Your task to perform on an android device: allow cookies in the chrome app Image 0: 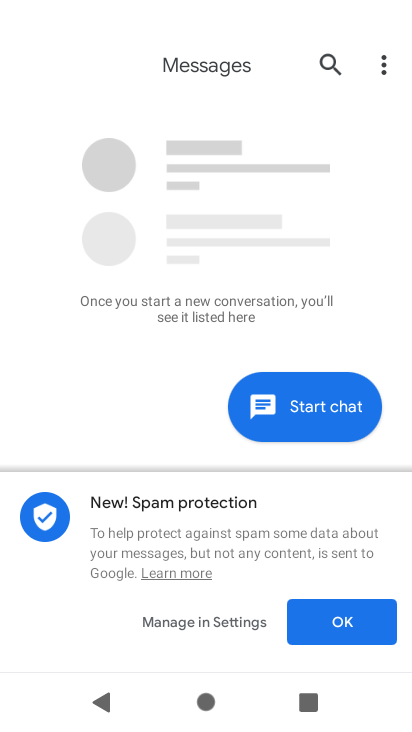
Step 0: press home button
Your task to perform on an android device: allow cookies in the chrome app Image 1: 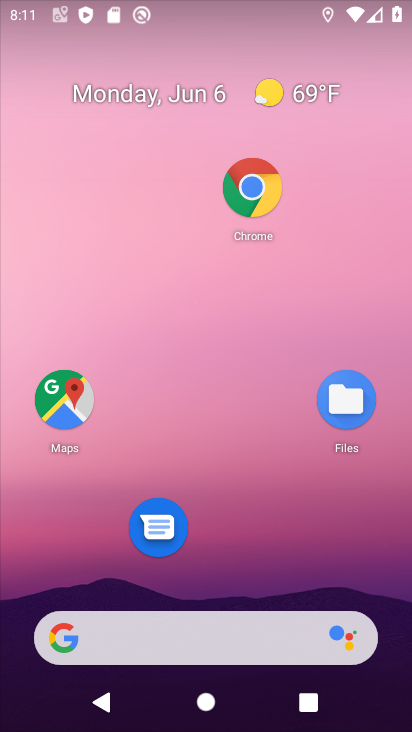
Step 1: click (250, 180)
Your task to perform on an android device: allow cookies in the chrome app Image 2: 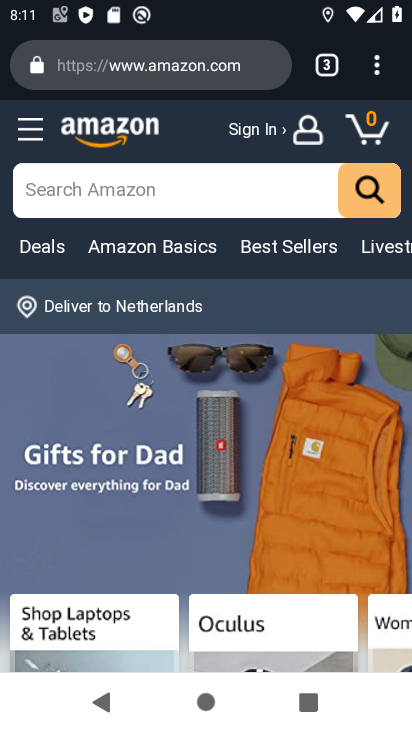
Step 2: click (363, 73)
Your task to perform on an android device: allow cookies in the chrome app Image 3: 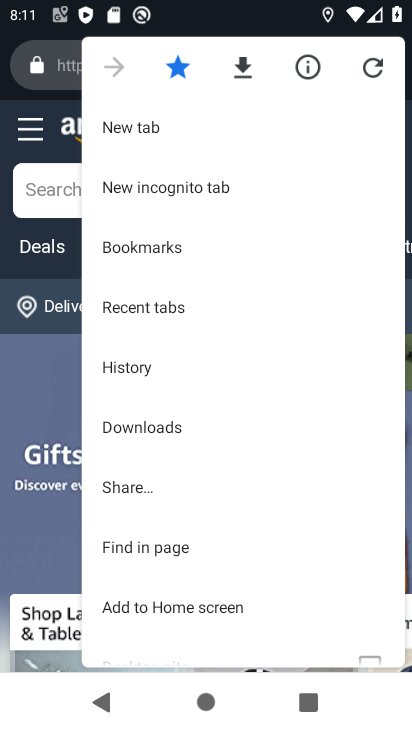
Step 3: drag from (341, 461) to (348, 47)
Your task to perform on an android device: allow cookies in the chrome app Image 4: 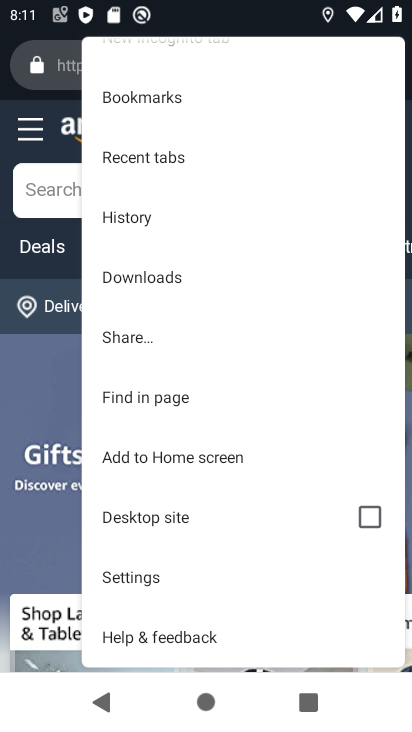
Step 4: click (137, 587)
Your task to perform on an android device: allow cookies in the chrome app Image 5: 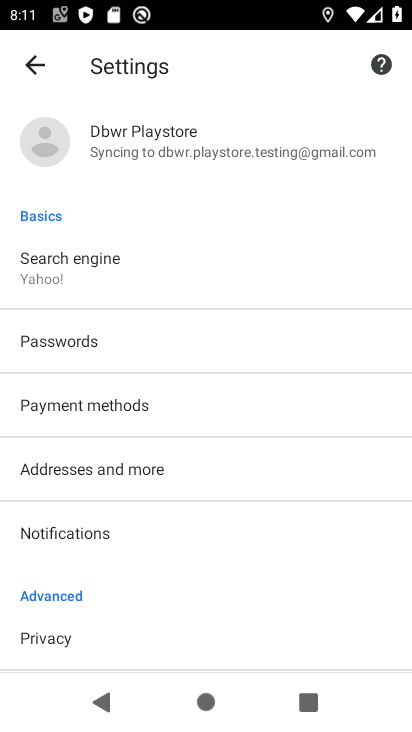
Step 5: drag from (191, 562) to (174, 231)
Your task to perform on an android device: allow cookies in the chrome app Image 6: 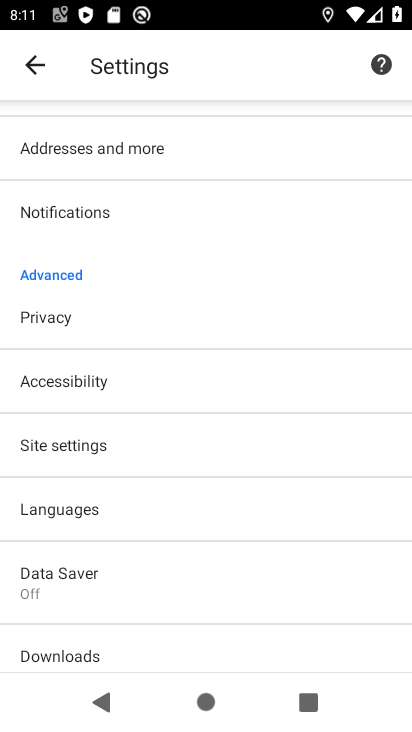
Step 6: click (55, 455)
Your task to perform on an android device: allow cookies in the chrome app Image 7: 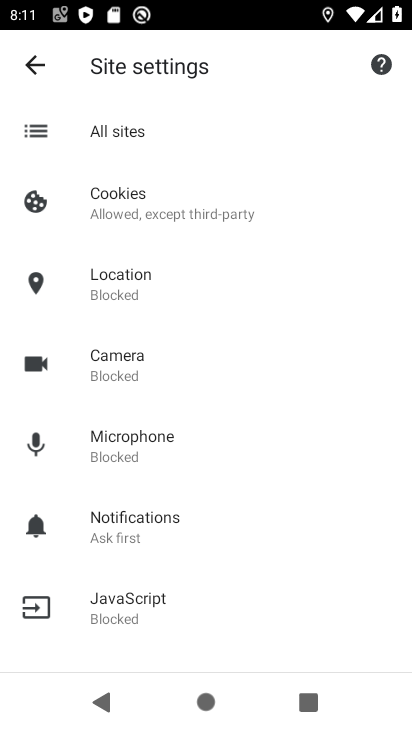
Step 7: click (157, 200)
Your task to perform on an android device: allow cookies in the chrome app Image 8: 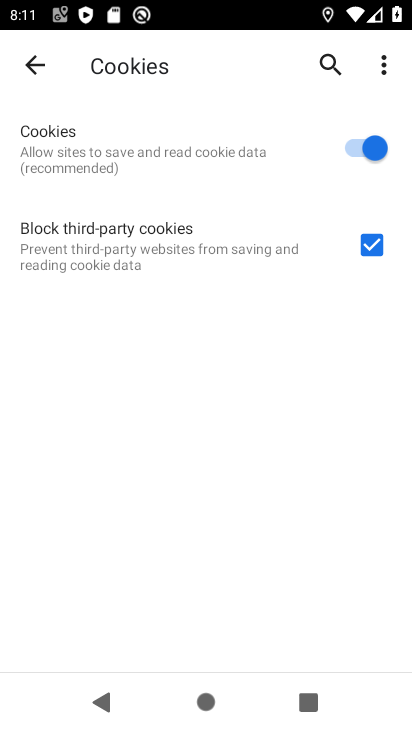
Step 8: task complete